Your task to perform on an android device: open app "Contacts" Image 0: 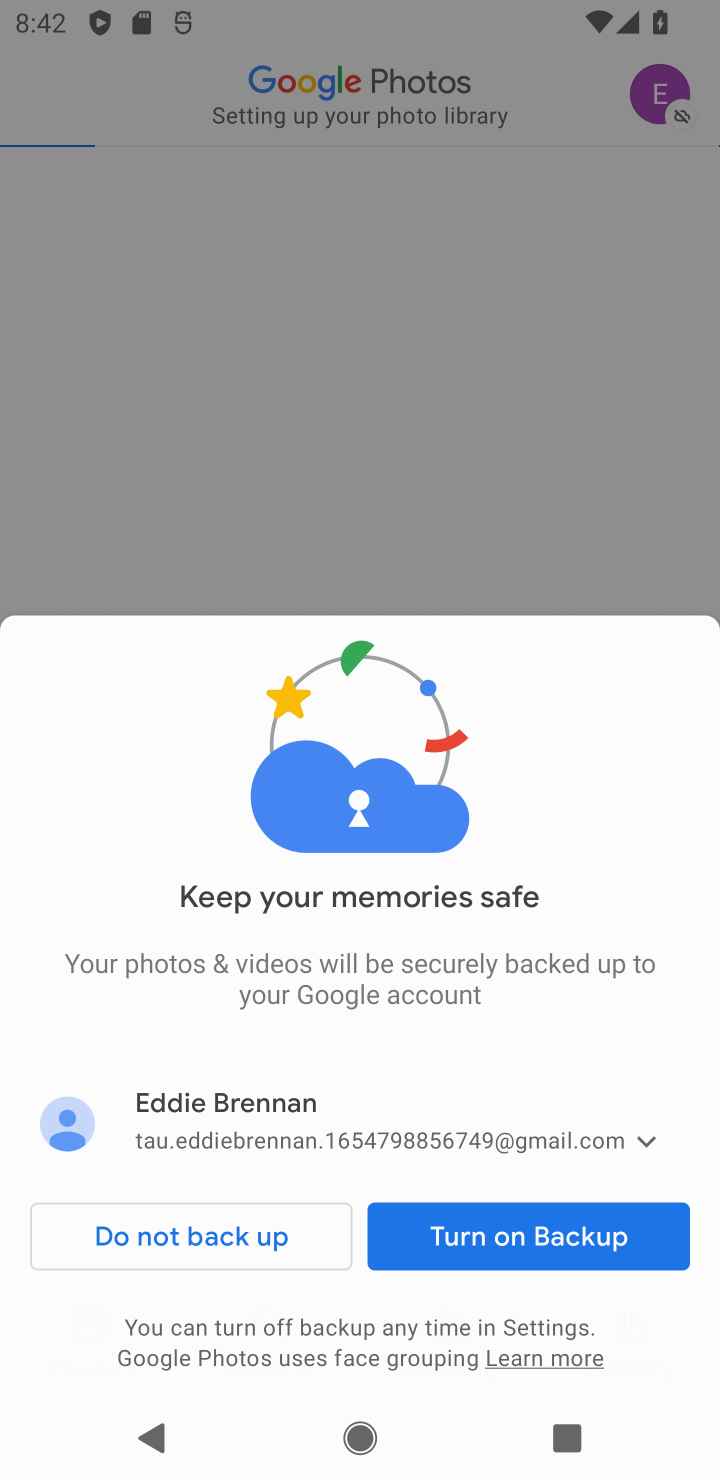
Step 0: press home button
Your task to perform on an android device: open app "Contacts" Image 1: 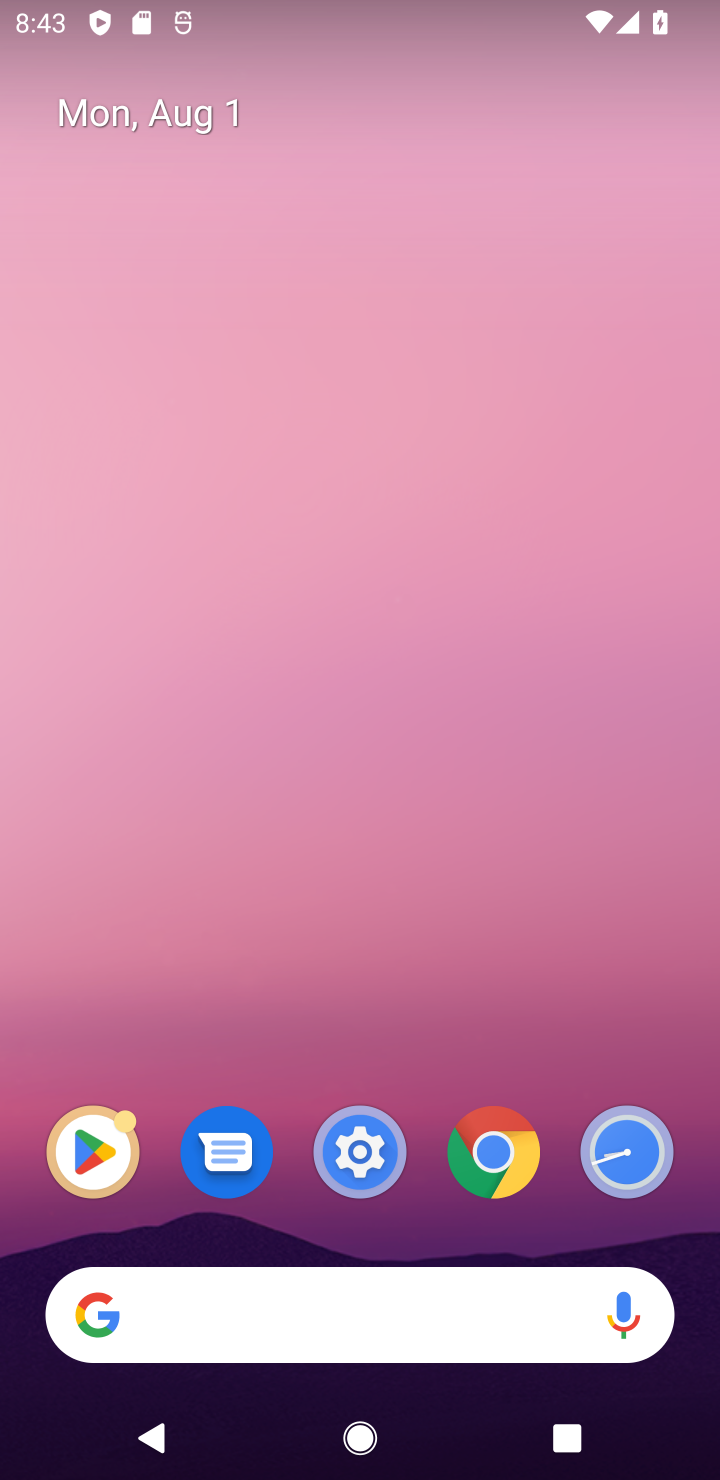
Step 1: drag from (279, 919) to (163, 96)
Your task to perform on an android device: open app "Contacts" Image 2: 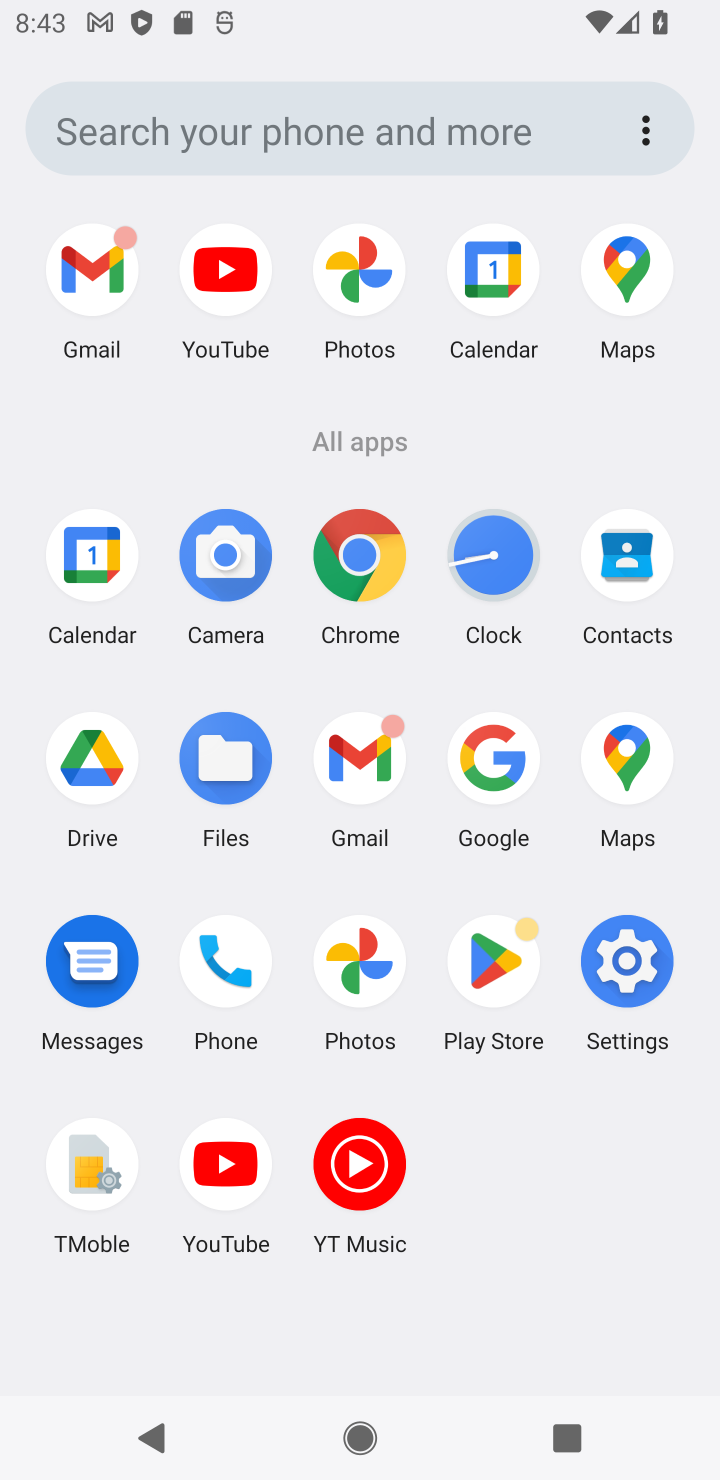
Step 2: click (491, 963)
Your task to perform on an android device: open app "Contacts" Image 3: 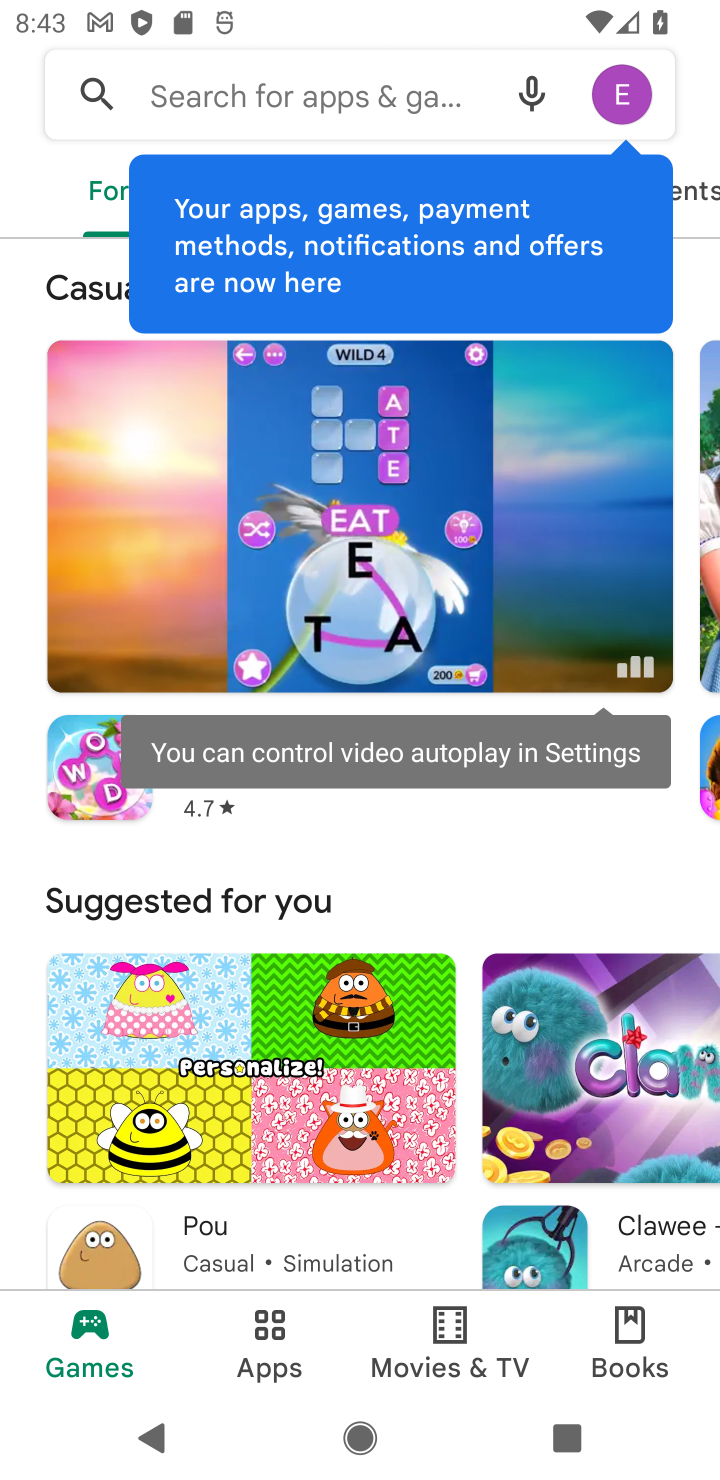
Step 3: click (211, 99)
Your task to perform on an android device: open app "Contacts" Image 4: 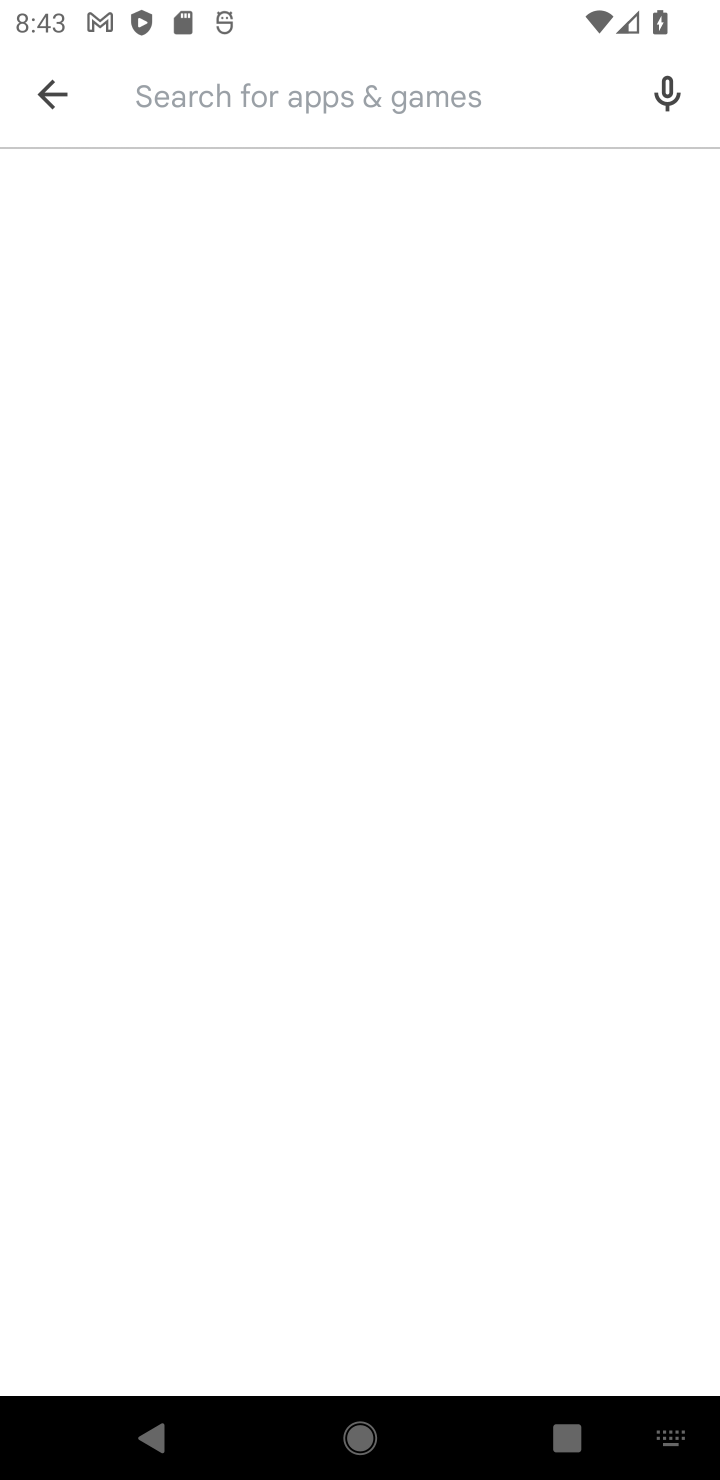
Step 4: press home button
Your task to perform on an android device: open app "Contacts" Image 5: 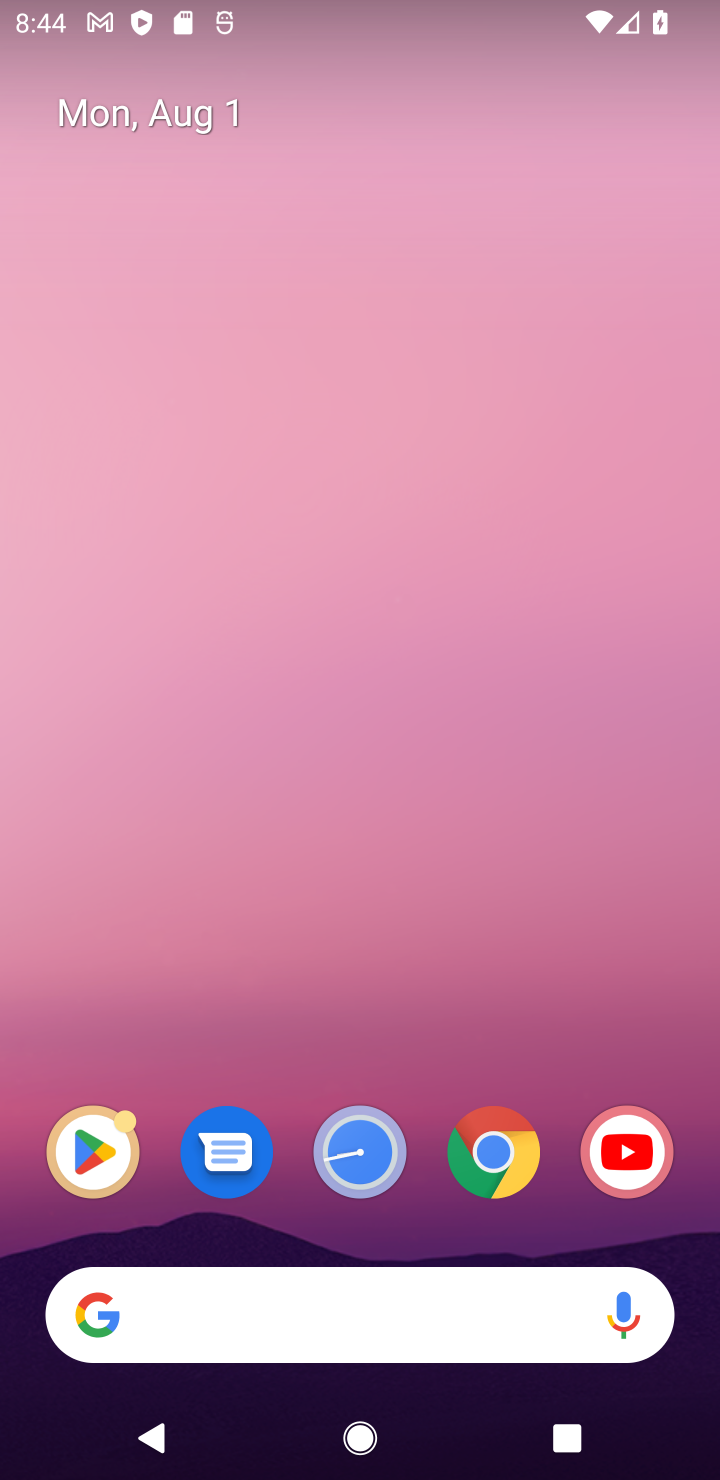
Step 5: drag from (391, 1256) to (294, 334)
Your task to perform on an android device: open app "Contacts" Image 6: 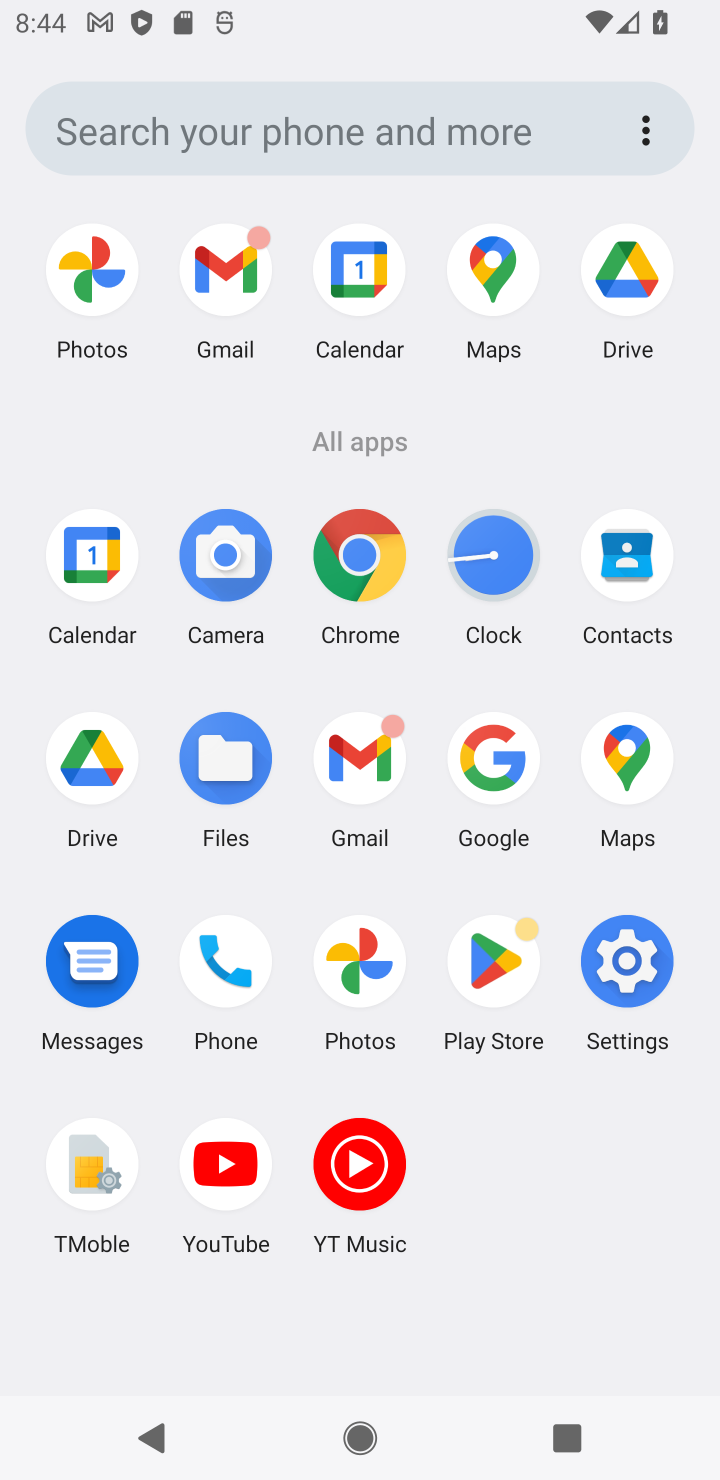
Step 6: click (641, 583)
Your task to perform on an android device: open app "Contacts" Image 7: 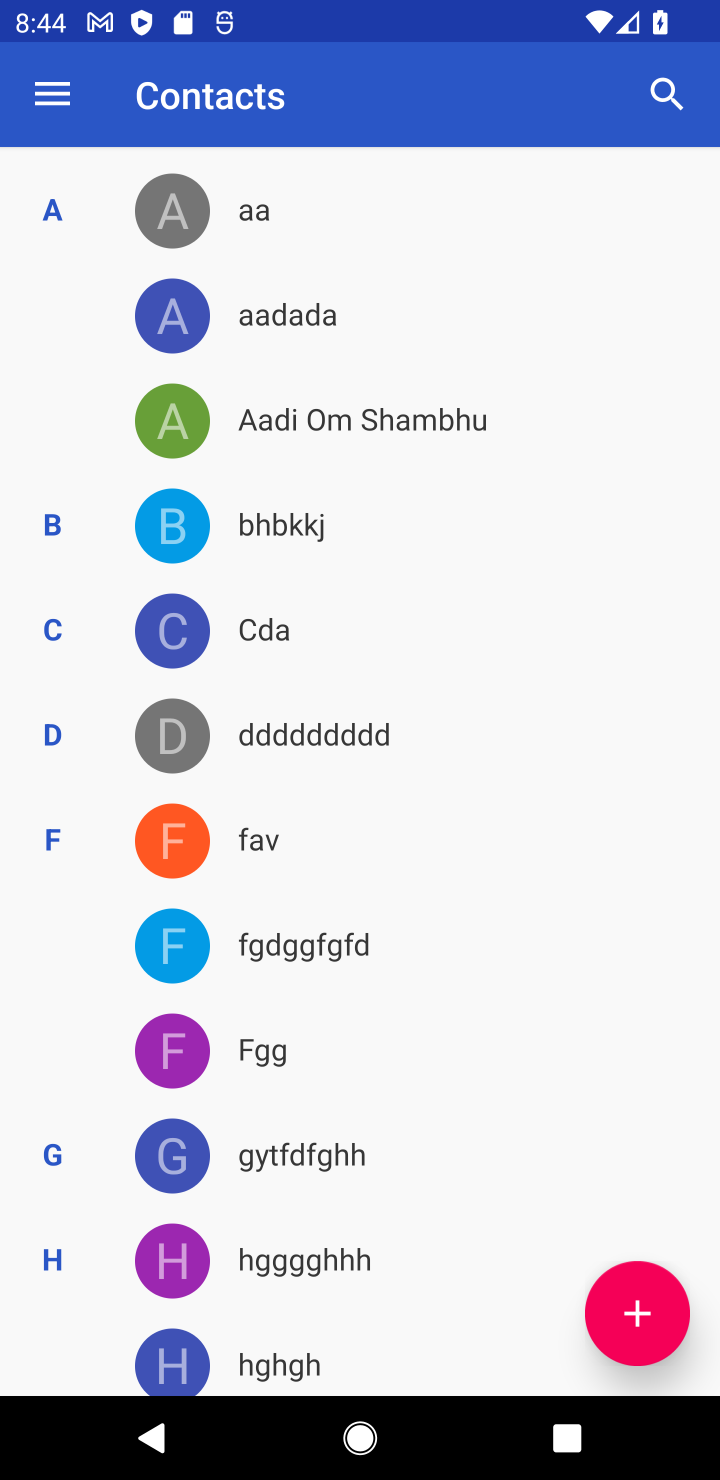
Step 7: task complete